Your task to perform on an android device: Find coffee shops on Maps Image 0: 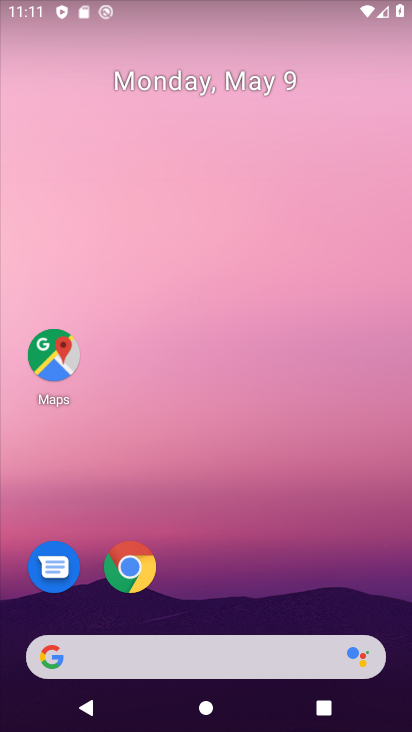
Step 0: click (72, 363)
Your task to perform on an android device: Find coffee shops on Maps Image 1: 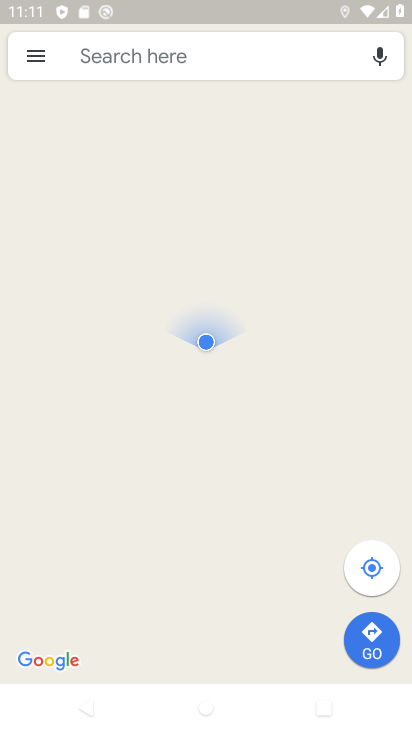
Step 1: click (237, 58)
Your task to perform on an android device: Find coffee shops on Maps Image 2: 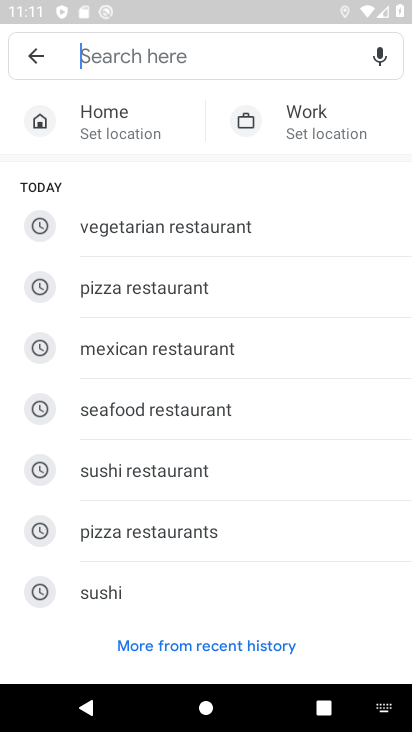
Step 2: type "coffee shops"
Your task to perform on an android device: Find coffee shops on Maps Image 3: 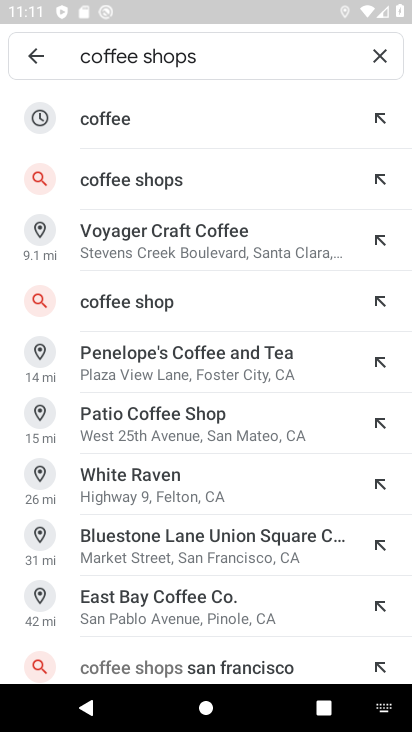
Step 3: click (217, 188)
Your task to perform on an android device: Find coffee shops on Maps Image 4: 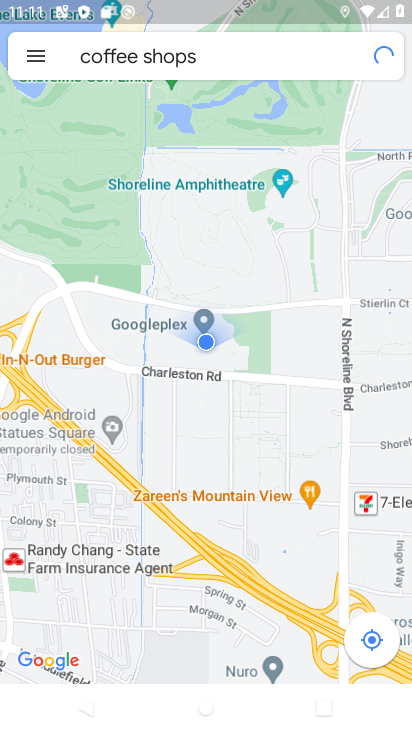
Step 4: task complete